Your task to perform on an android device: set the stopwatch Image 0: 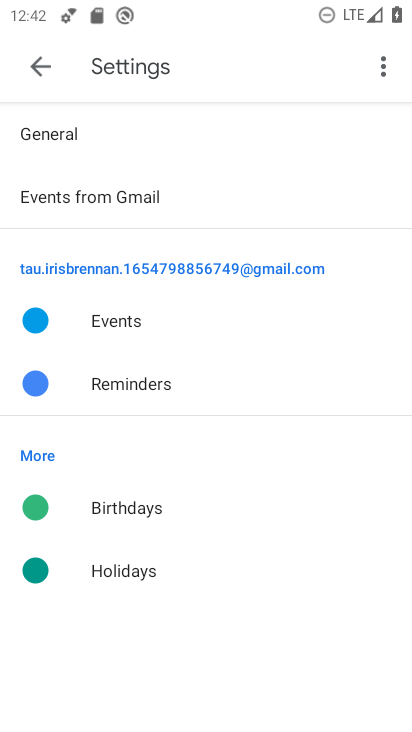
Step 0: press home button
Your task to perform on an android device: set the stopwatch Image 1: 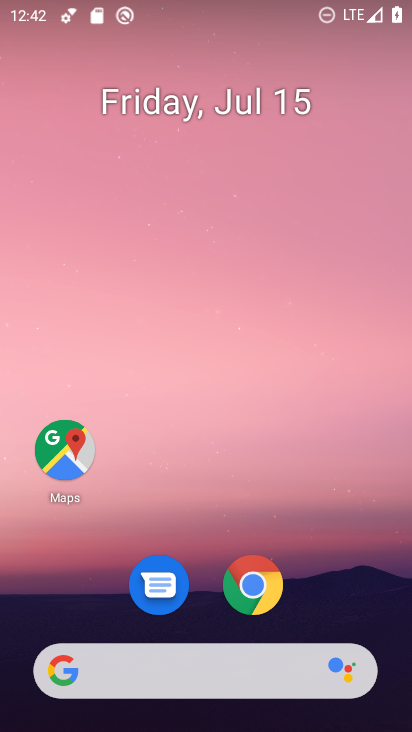
Step 1: drag from (317, 441) to (324, 23)
Your task to perform on an android device: set the stopwatch Image 2: 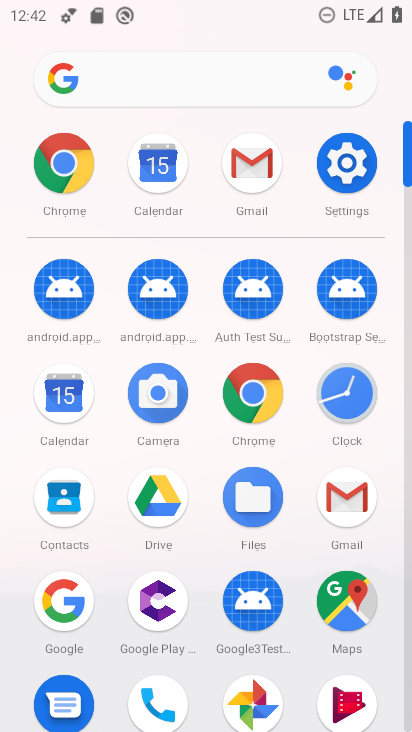
Step 2: click (358, 392)
Your task to perform on an android device: set the stopwatch Image 3: 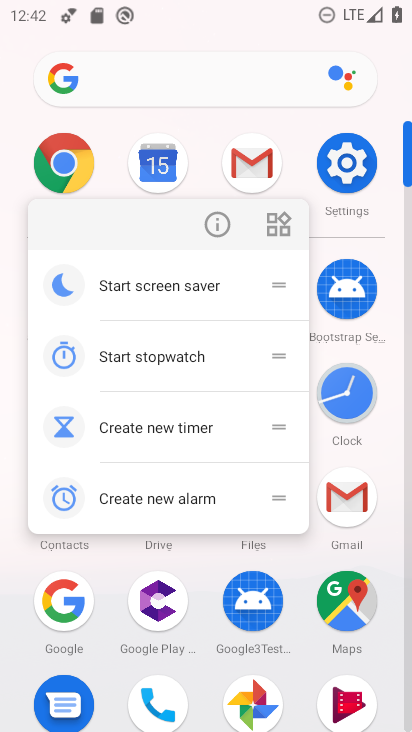
Step 3: click (358, 394)
Your task to perform on an android device: set the stopwatch Image 4: 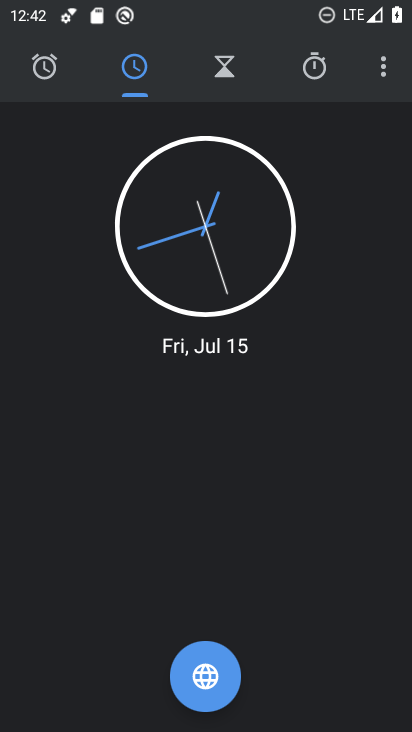
Step 4: click (305, 68)
Your task to perform on an android device: set the stopwatch Image 5: 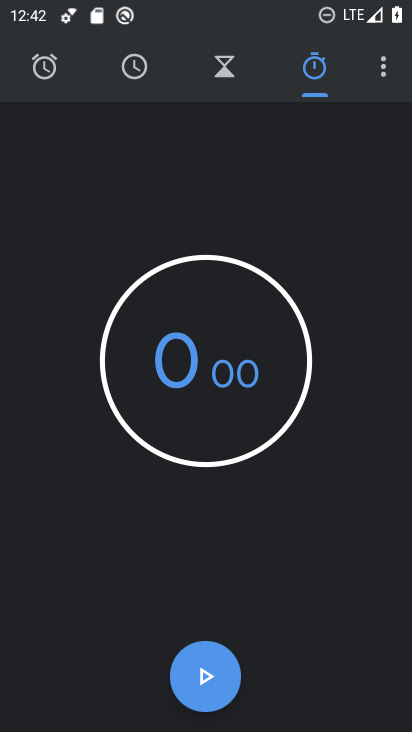
Step 5: task complete